Your task to perform on an android device: turn on showing notifications on the lock screen Image 0: 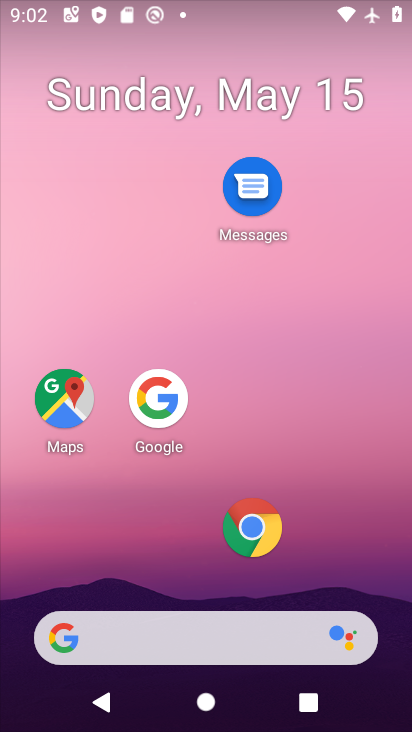
Step 0: press home button
Your task to perform on an android device: turn on showing notifications on the lock screen Image 1: 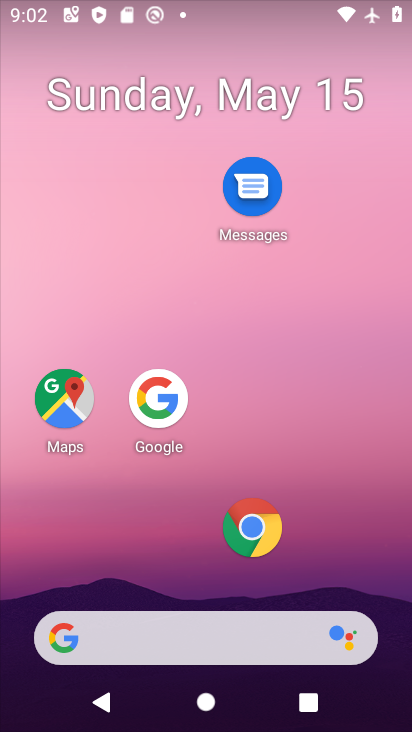
Step 1: drag from (163, 634) to (298, 160)
Your task to perform on an android device: turn on showing notifications on the lock screen Image 2: 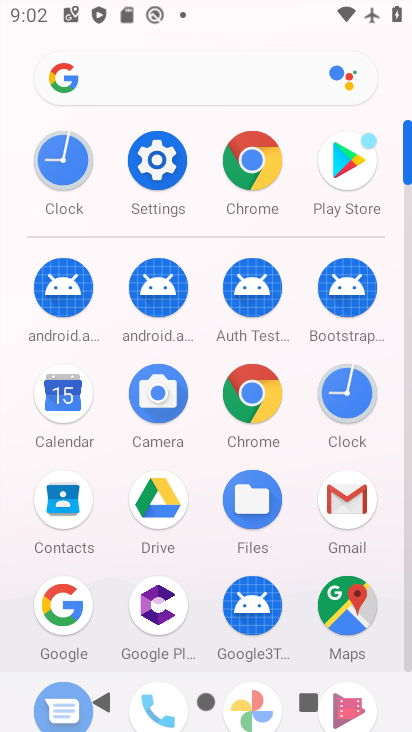
Step 2: click (161, 155)
Your task to perform on an android device: turn on showing notifications on the lock screen Image 3: 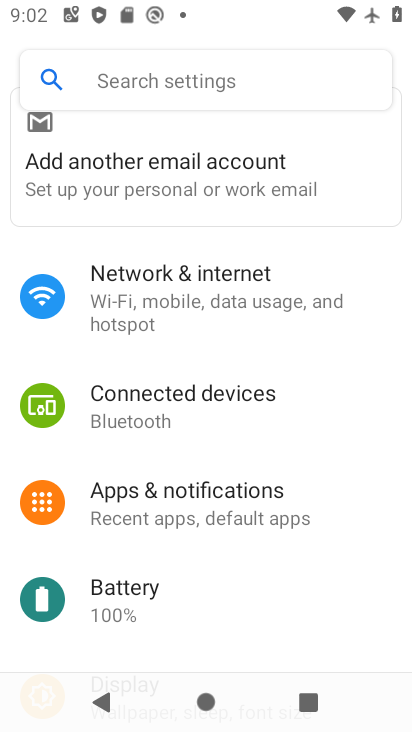
Step 3: click (176, 490)
Your task to perform on an android device: turn on showing notifications on the lock screen Image 4: 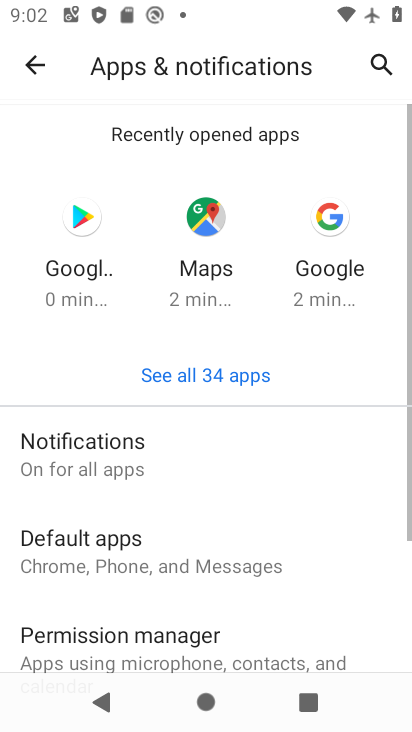
Step 4: click (105, 453)
Your task to perform on an android device: turn on showing notifications on the lock screen Image 5: 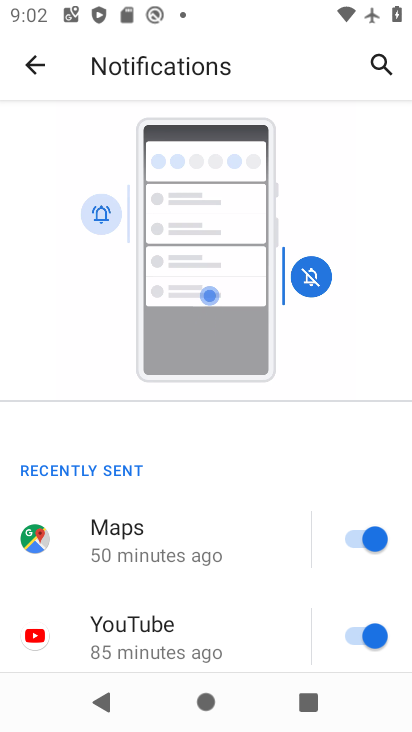
Step 5: drag from (210, 547) to (382, 102)
Your task to perform on an android device: turn on showing notifications on the lock screen Image 6: 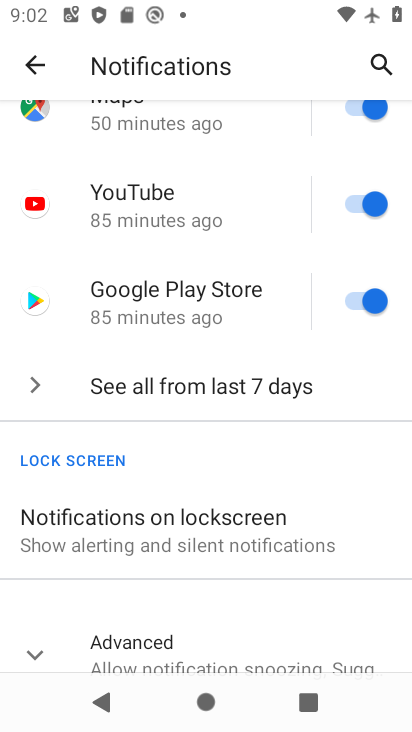
Step 6: click (167, 523)
Your task to perform on an android device: turn on showing notifications on the lock screen Image 7: 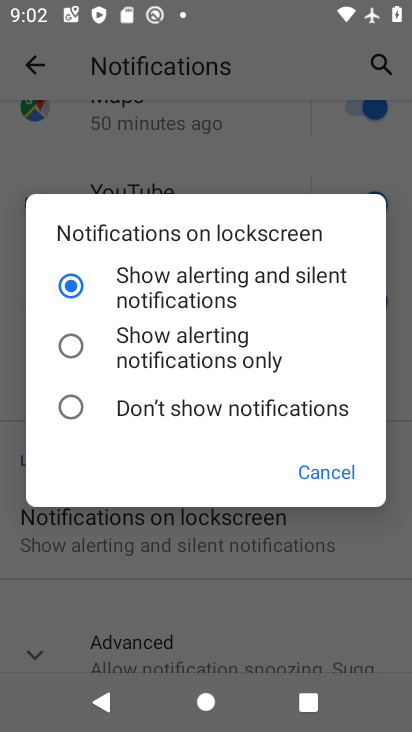
Step 7: task complete